Your task to perform on an android device: Check the news Image 0: 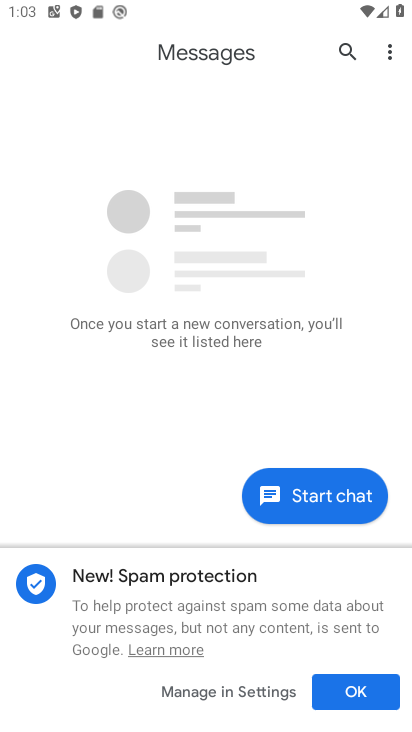
Step 0: press home button
Your task to perform on an android device: Check the news Image 1: 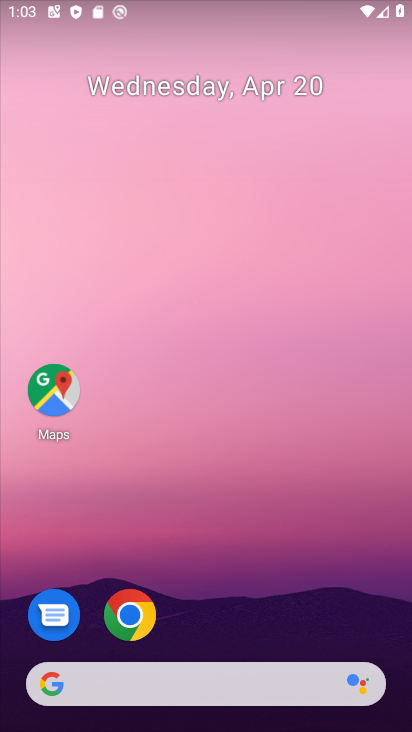
Step 1: drag from (386, 436) to (364, 148)
Your task to perform on an android device: Check the news Image 2: 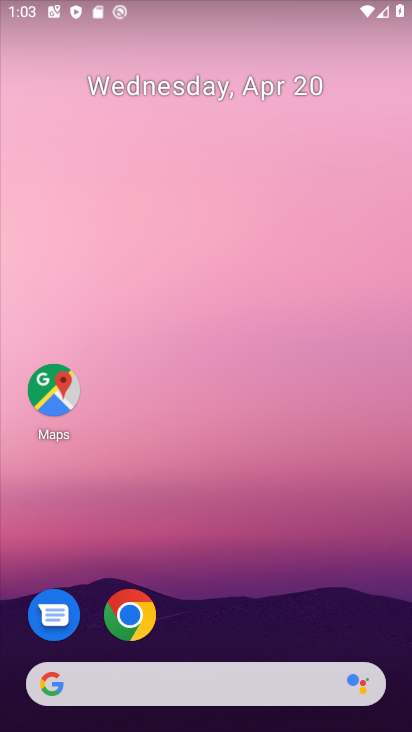
Step 2: drag from (356, 250) to (342, 135)
Your task to perform on an android device: Check the news Image 3: 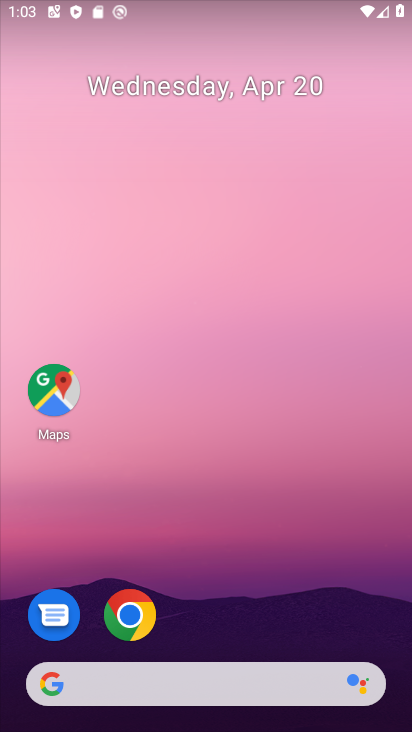
Step 3: drag from (375, 514) to (354, 36)
Your task to perform on an android device: Check the news Image 4: 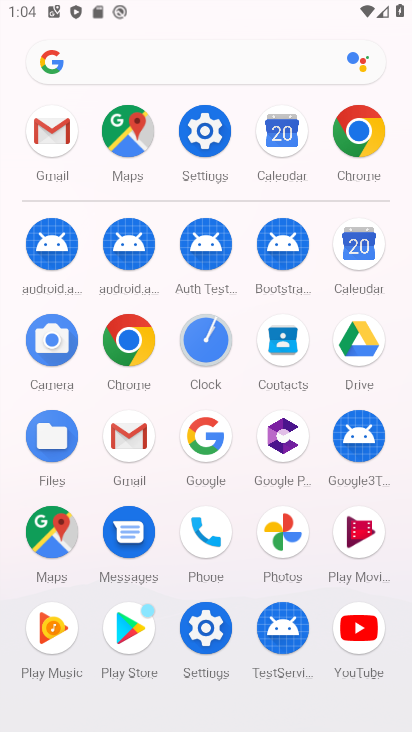
Step 4: press home button
Your task to perform on an android device: Check the news Image 5: 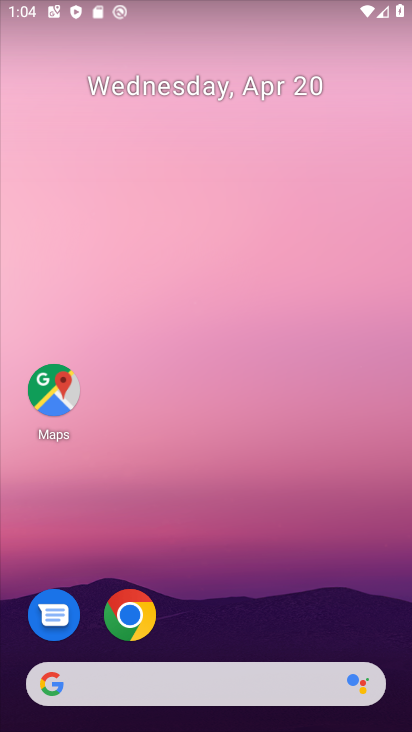
Step 5: drag from (179, 217) to (404, 215)
Your task to perform on an android device: Check the news Image 6: 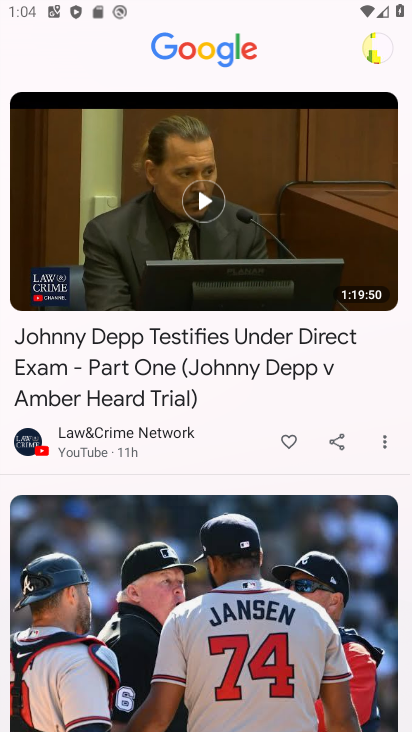
Step 6: click (169, 229)
Your task to perform on an android device: Check the news Image 7: 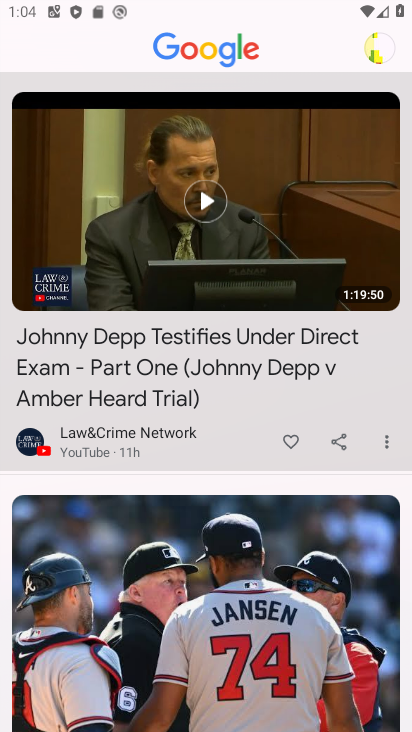
Step 7: task complete